Your task to perform on an android device: Open my contact list Image 0: 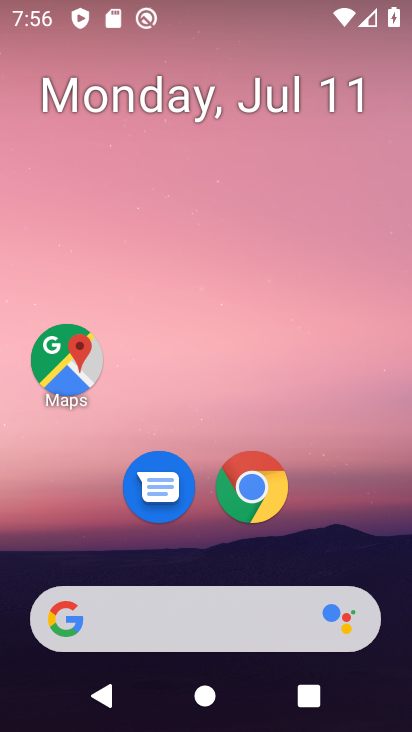
Step 0: drag from (169, 579) to (228, 52)
Your task to perform on an android device: Open my contact list Image 1: 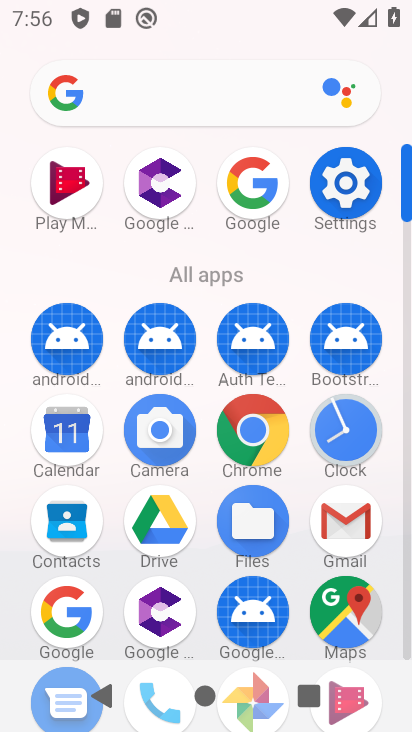
Step 1: click (75, 530)
Your task to perform on an android device: Open my contact list Image 2: 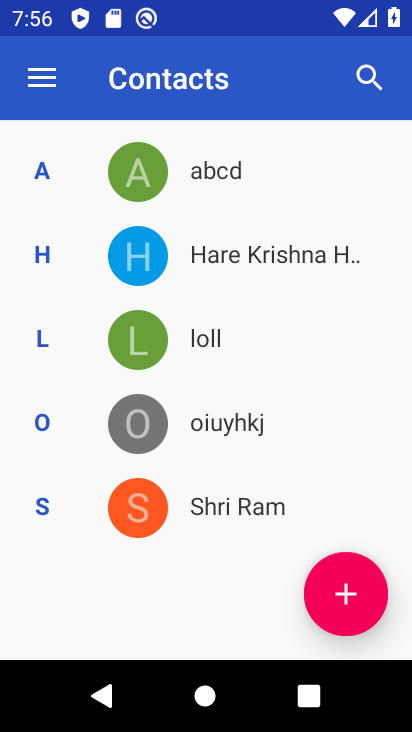
Step 2: task complete